Your task to perform on an android device: Open maps Image 0: 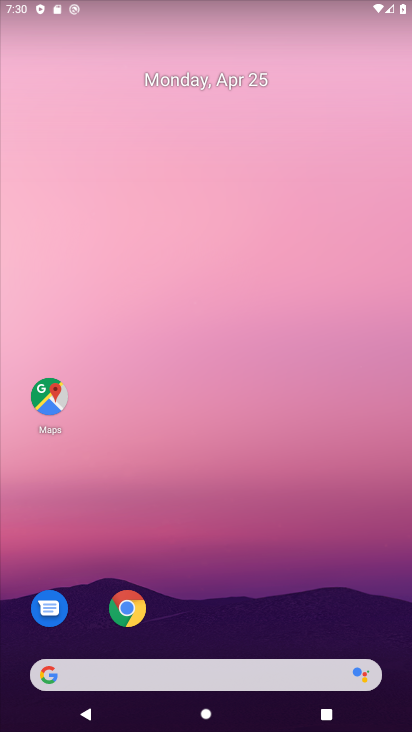
Step 0: click (55, 404)
Your task to perform on an android device: Open maps Image 1: 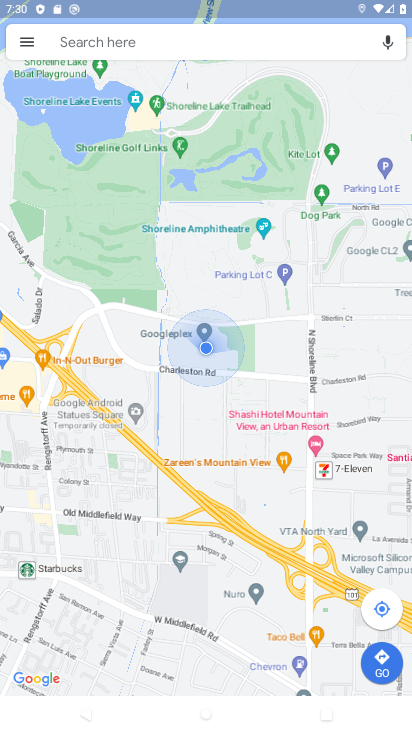
Step 1: task complete